Your task to perform on an android device: toggle sleep mode Image 0: 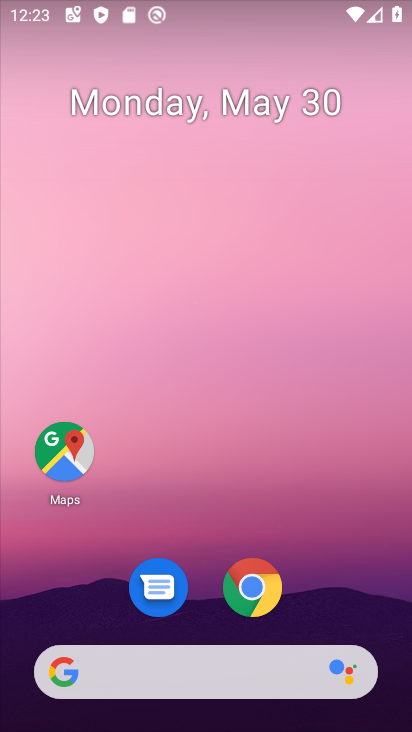
Step 0: drag from (233, 15) to (274, 444)
Your task to perform on an android device: toggle sleep mode Image 1: 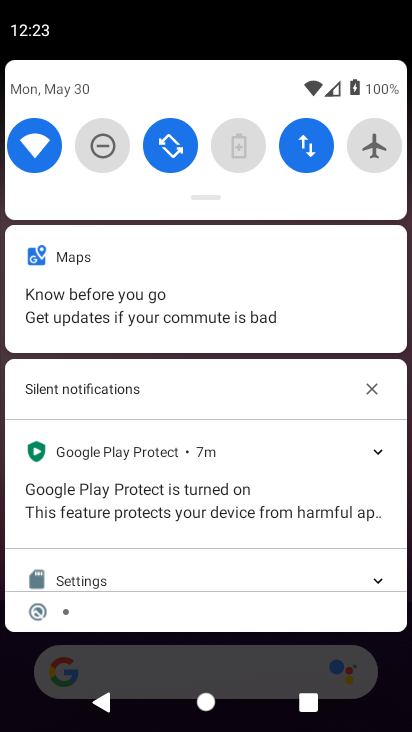
Step 1: drag from (197, 194) to (234, 553)
Your task to perform on an android device: toggle sleep mode Image 2: 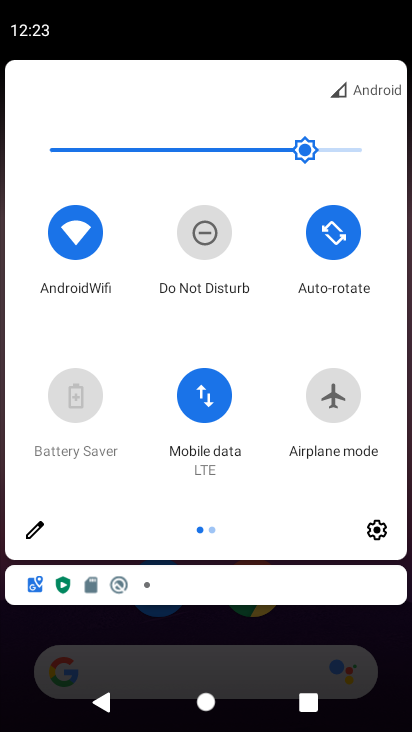
Step 2: click (38, 530)
Your task to perform on an android device: toggle sleep mode Image 3: 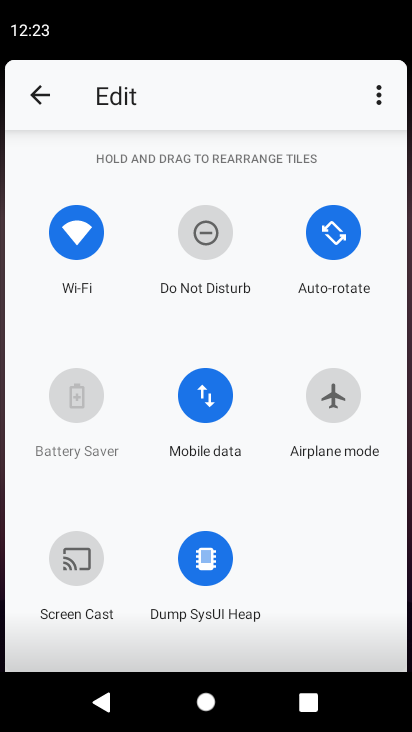
Step 3: task complete